Your task to perform on an android device: What's the weather? Image 0: 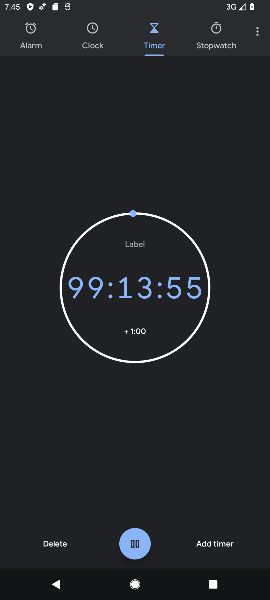
Step 0: press home button
Your task to perform on an android device: What's the weather? Image 1: 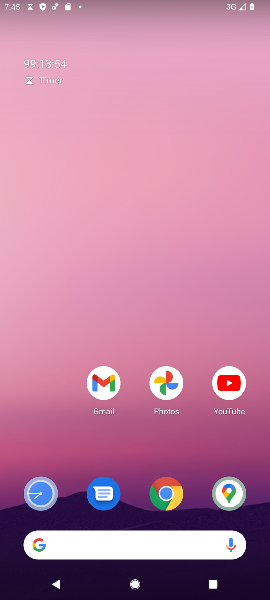
Step 1: drag from (170, 525) to (221, 169)
Your task to perform on an android device: What's the weather? Image 2: 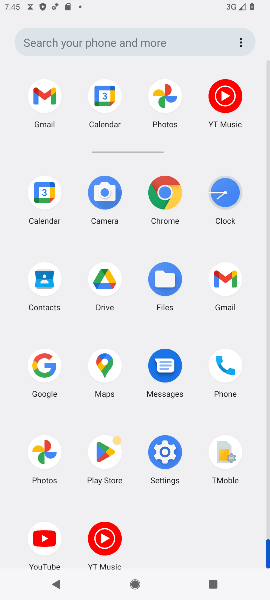
Step 2: click (161, 197)
Your task to perform on an android device: What's the weather? Image 3: 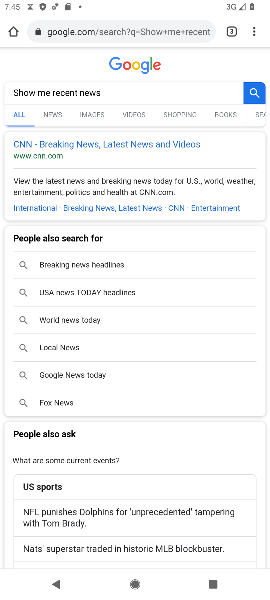
Step 3: click (256, 27)
Your task to perform on an android device: What's the weather? Image 4: 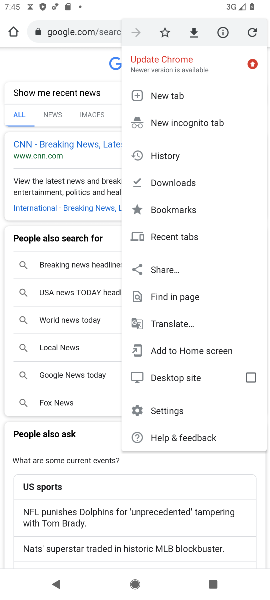
Step 4: click (171, 95)
Your task to perform on an android device: What's the weather? Image 5: 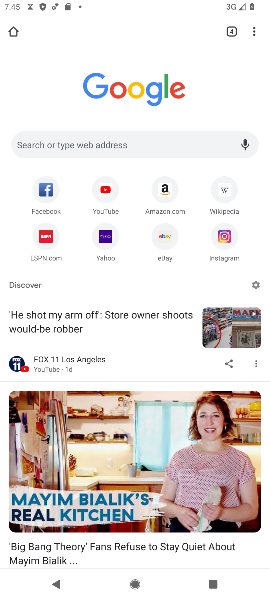
Step 5: click (140, 133)
Your task to perform on an android device: What's the weather? Image 6: 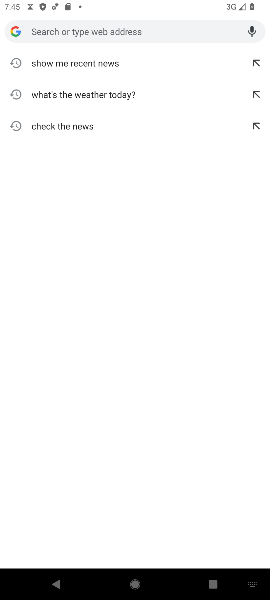
Step 6: type "What's the weather? "
Your task to perform on an android device: What's the weather? Image 7: 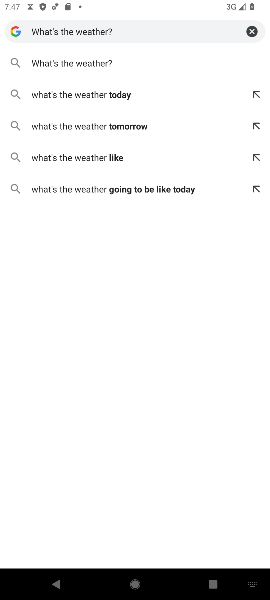
Step 7: click (108, 57)
Your task to perform on an android device: What's the weather? Image 8: 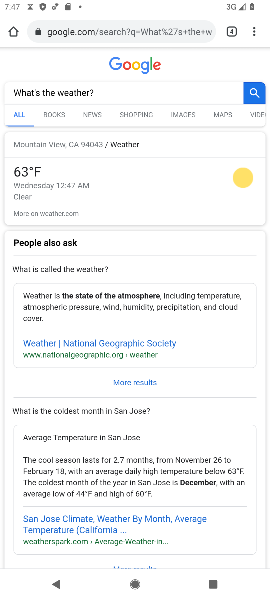
Step 8: task complete